Your task to perform on an android device: turn off sleep mode Image 0: 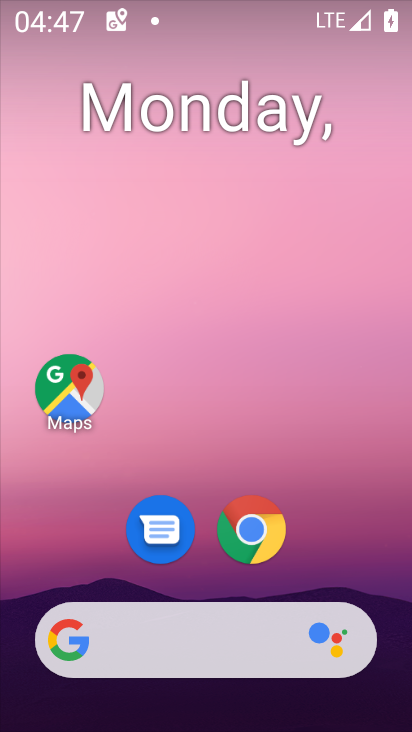
Step 0: drag from (341, 554) to (261, 157)
Your task to perform on an android device: turn off sleep mode Image 1: 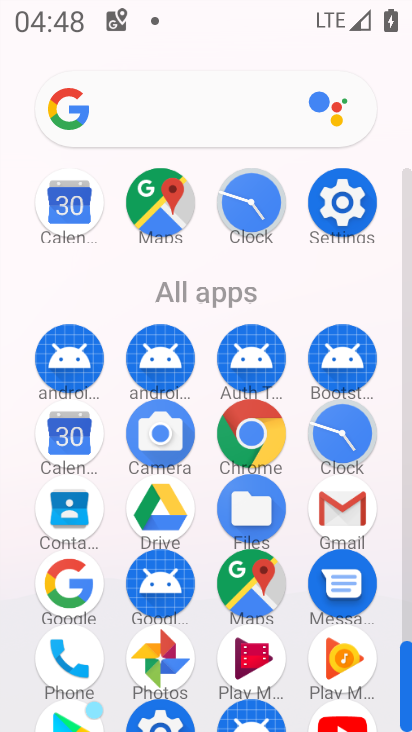
Step 1: click (354, 195)
Your task to perform on an android device: turn off sleep mode Image 2: 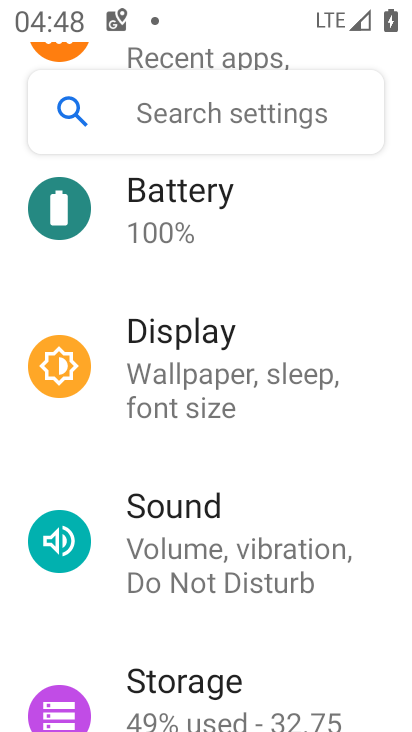
Step 2: click (291, 356)
Your task to perform on an android device: turn off sleep mode Image 3: 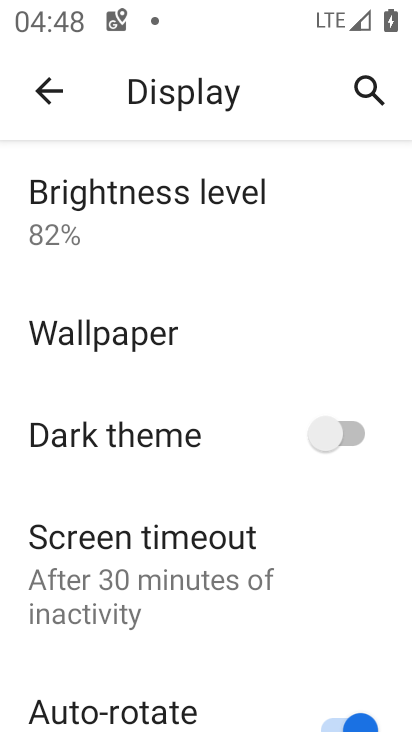
Step 3: task complete